Your task to perform on an android device: Go to Android settings Image 0: 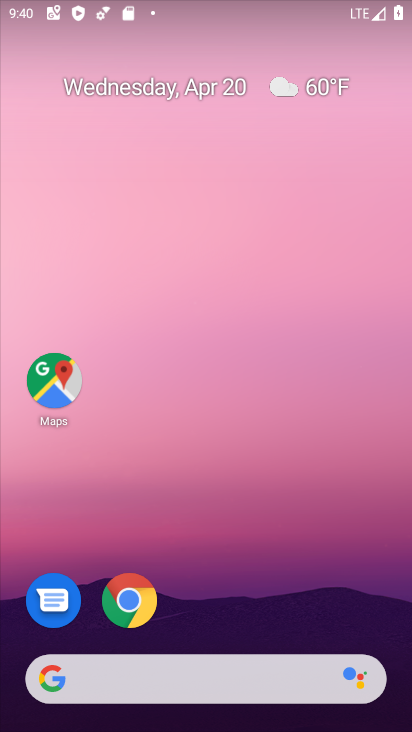
Step 0: drag from (240, 619) to (196, 63)
Your task to perform on an android device: Go to Android settings Image 1: 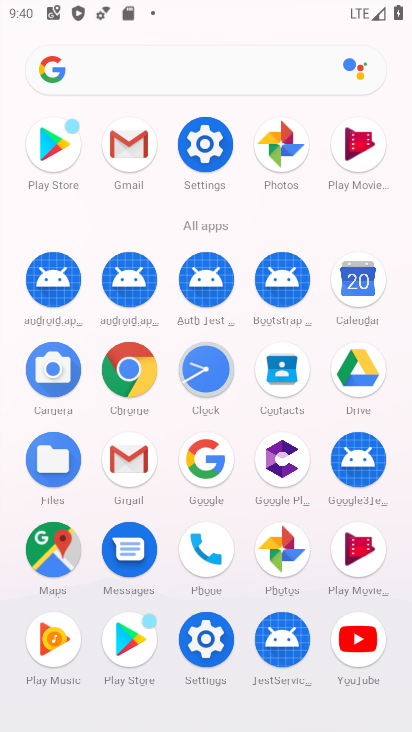
Step 1: click (197, 138)
Your task to perform on an android device: Go to Android settings Image 2: 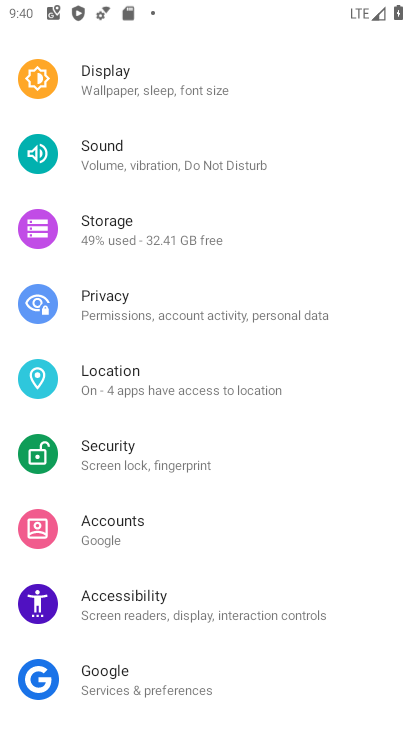
Step 2: drag from (120, 633) to (117, 30)
Your task to perform on an android device: Go to Android settings Image 3: 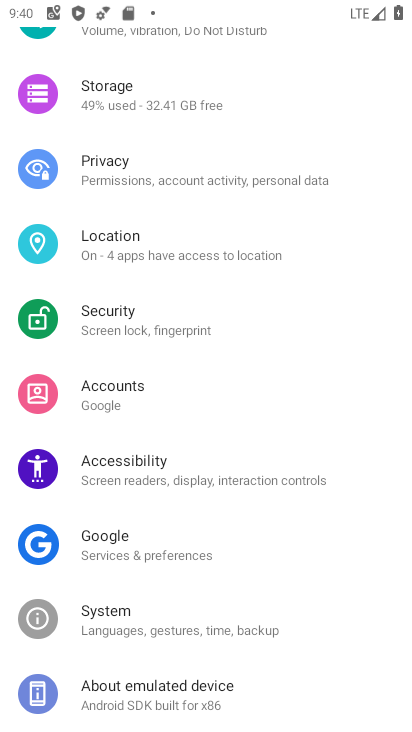
Step 3: click (165, 684)
Your task to perform on an android device: Go to Android settings Image 4: 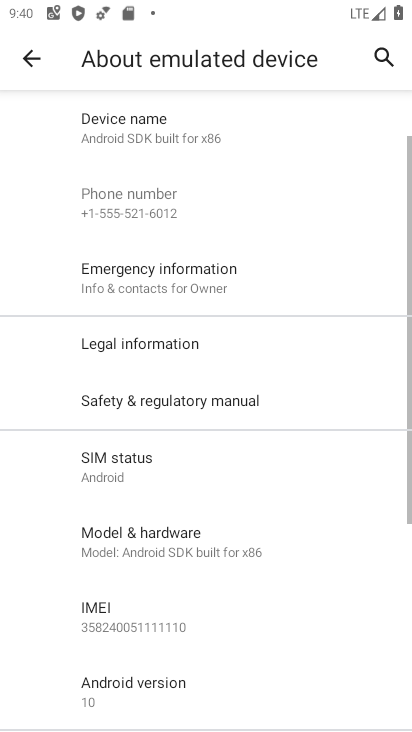
Step 4: task complete